Your task to perform on an android device: toggle priority inbox in the gmail app Image 0: 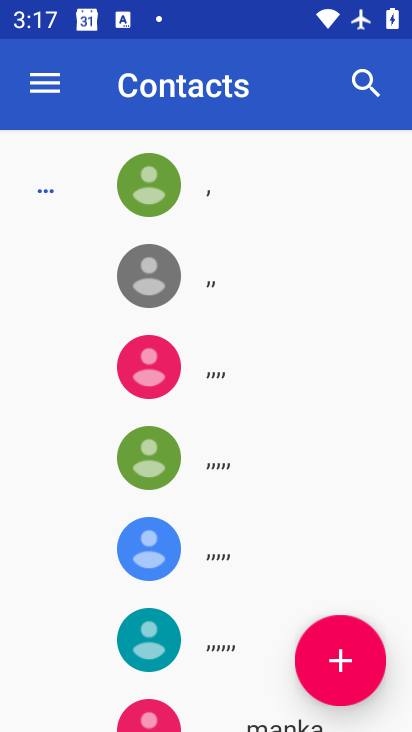
Step 0: press home button
Your task to perform on an android device: toggle priority inbox in the gmail app Image 1: 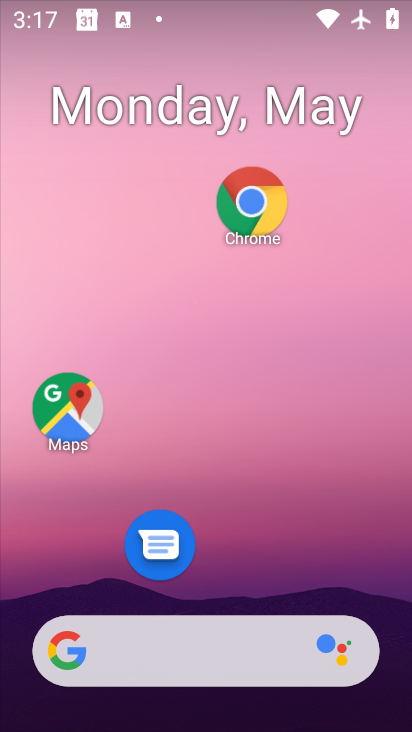
Step 1: drag from (217, 583) to (203, 276)
Your task to perform on an android device: toggle priority inbox in the gmail app Image 2: 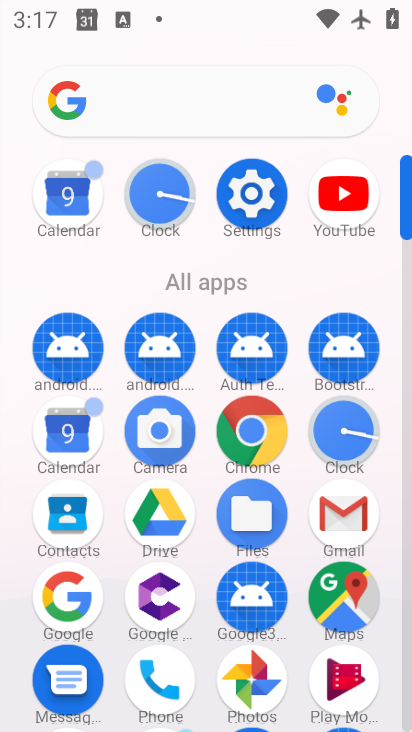
Step 2: click (332, 514)
Your task to perform on an android device: toggle priority inbox in the gmail app Image 3: 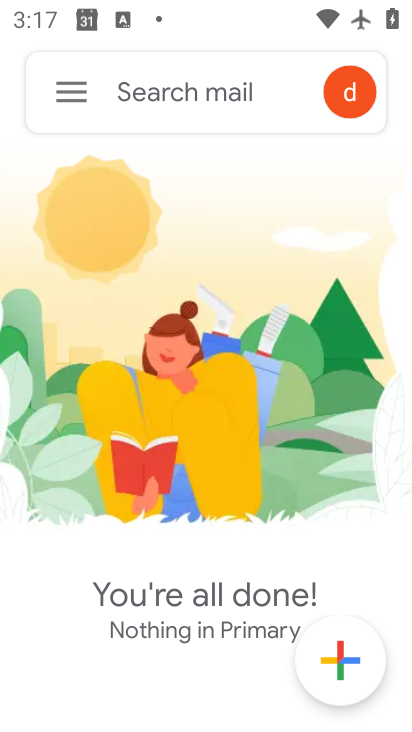
Step 3: click (76, 101)
Your task to perform on an android device: toggle priority inbox in the gmail app Image 4: 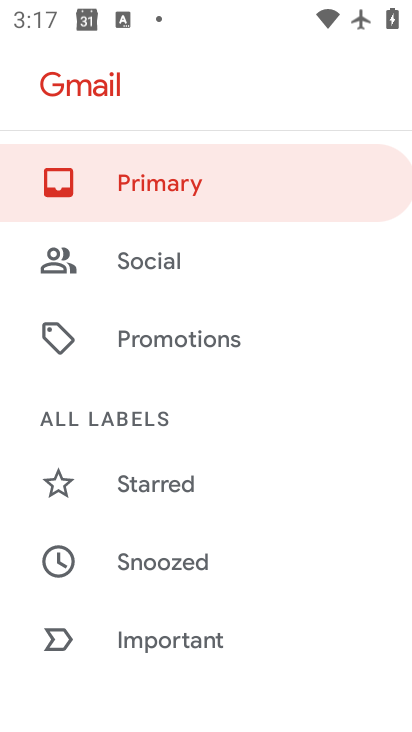
Step 4: drag from (215, 592) to (232, 252)
Your task to perform on an android device: toggle priority inbox in the gmail app Image 5: 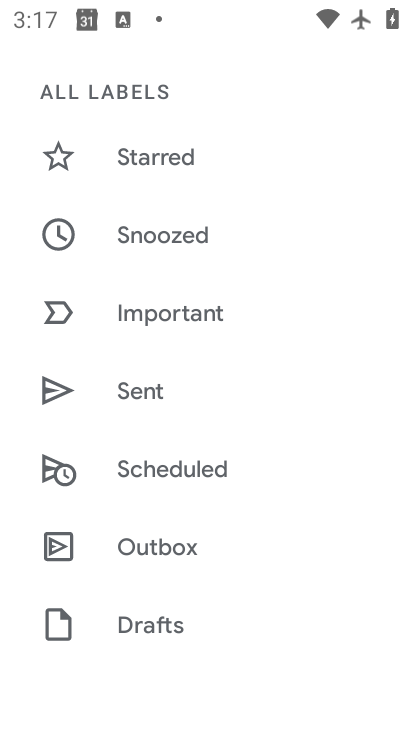
Step 5: drag from (189, 537) to (194, 230)
Your task to perform on an android device: toggle priority inbox in the gmail app Image 6: 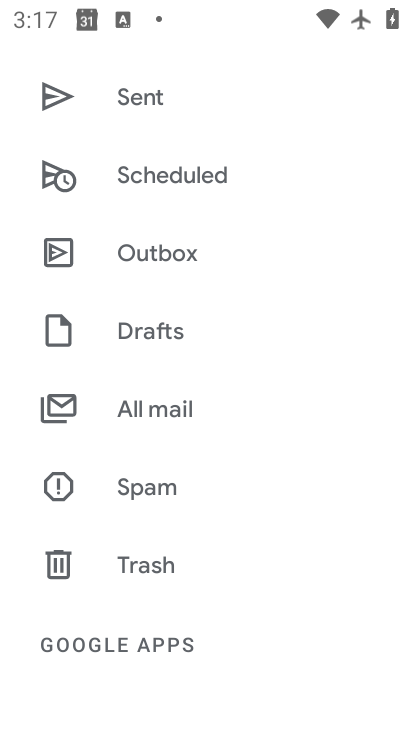
Step 6: drag from (171, 591) to (171, 242)
Your task to perform on an android device: toggle priority inbox in the gmail app Image 7: 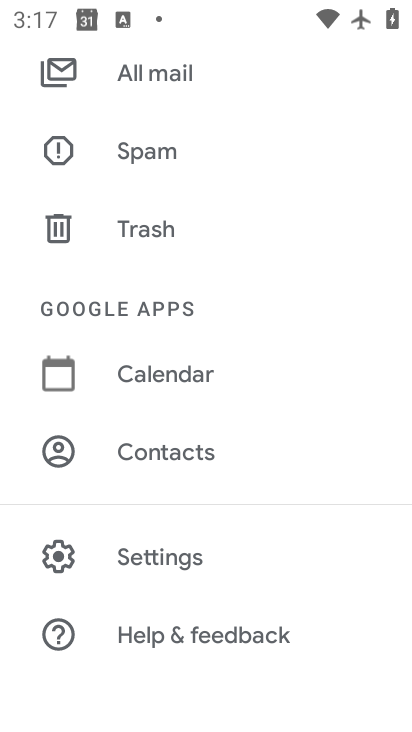
Step 7: click (171, 552)
Your task to perform on an android device: toggle priority inbox in the gmail app Image 8: 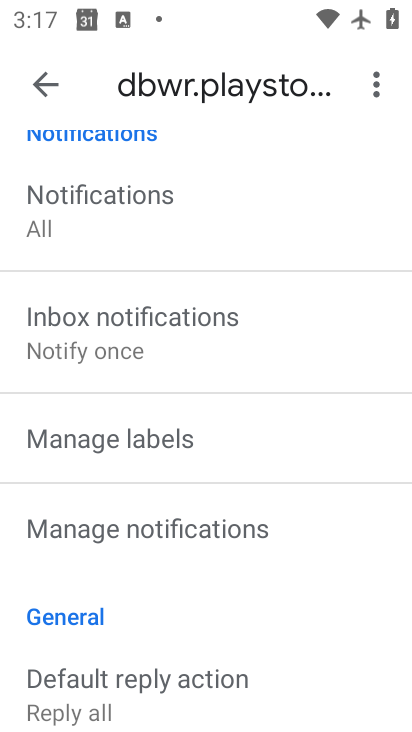
Step 8: drag from (263, 213) to (243, 514)
Your task to perform on an android device: toggle priority inbox in the gmail app Image 9: 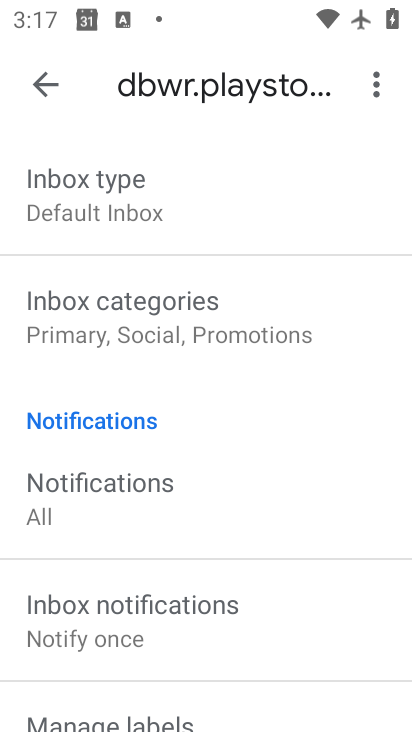
Step 9: drag from (186, 232) to (195, 424)
Your task to perform on an android device: toggle priority inbox in the gmail app Image 10: 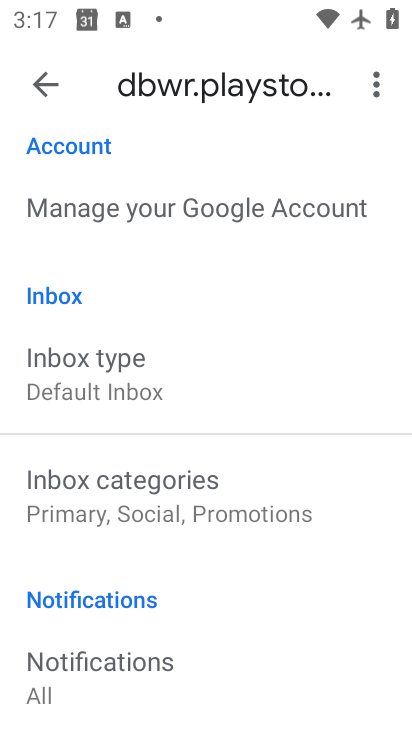
Step 10: click (58, 382)
Your task to perform on an android device: toggle priority inbox in the gmail app Image 11: 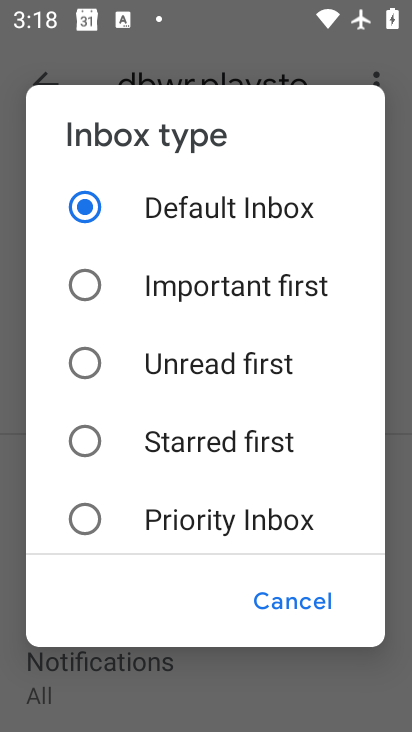
Step 11: click (128, 512)
Your task to perform on an android device: toggle priority inbox in the gmail app Image 12: 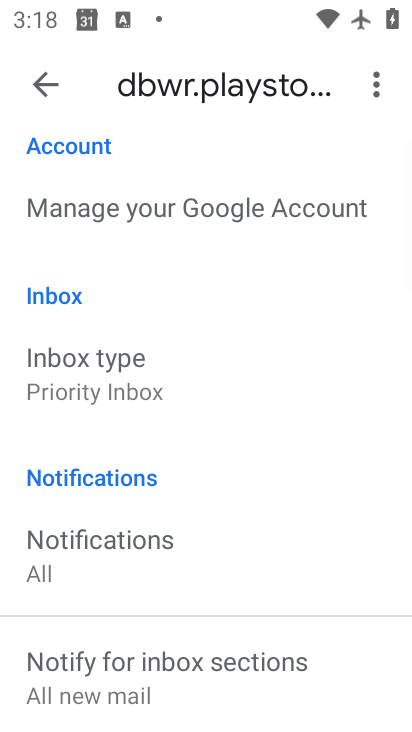
Step 12: task complete